Your task to perform on an android device: turn on airplane mode Image 0: 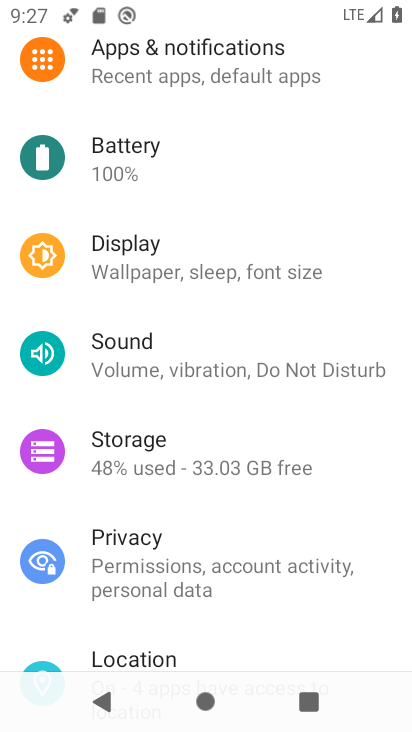
Step 0: drag from (216, 195) to (237, 613)
Your task to perform on an android device: turn on airplane mode Image 1: 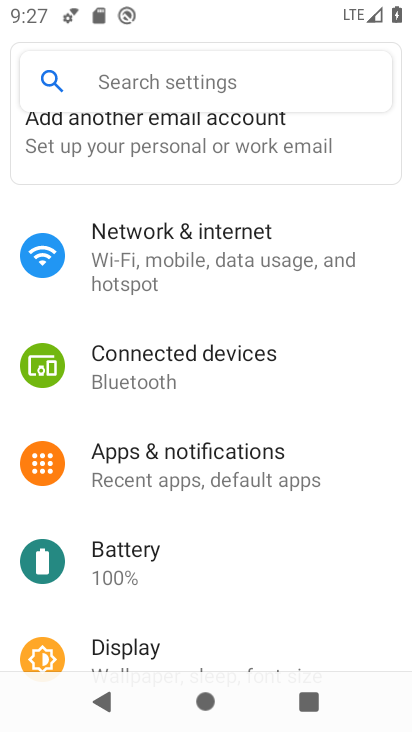
Step 1: click (244, 253)
Your task to perform on an android device: turn on airplane mode Image 2: 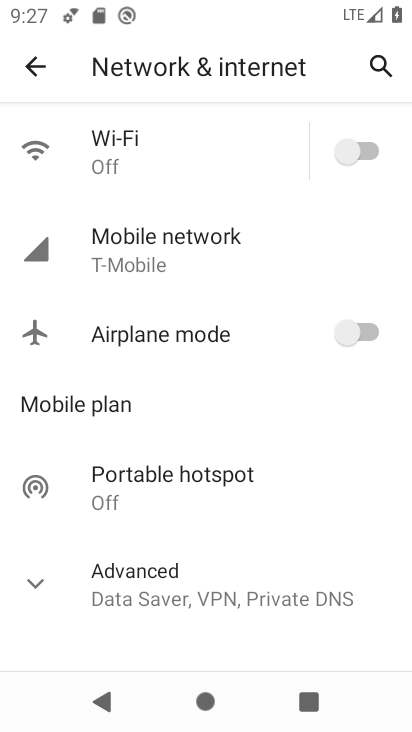
Step 2: click (358, 332)
Your task to perform on an android device: turn on airplane mode Image 3: 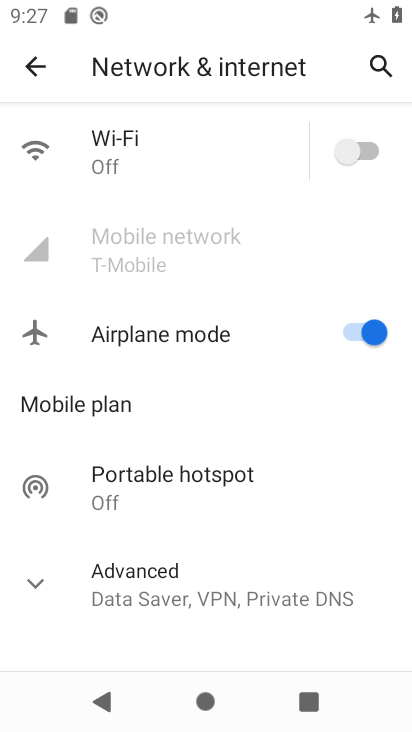
Step 3: task complete